Your task to perform on an android device: set the stopwatch Image 0: 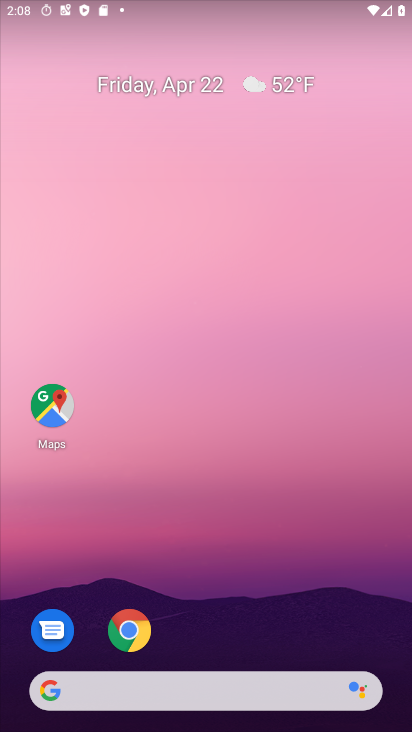
Step 0: drag from (369, 638) to (255, 47)
Your task to perform on an android device: set the stopwatch Image 1: 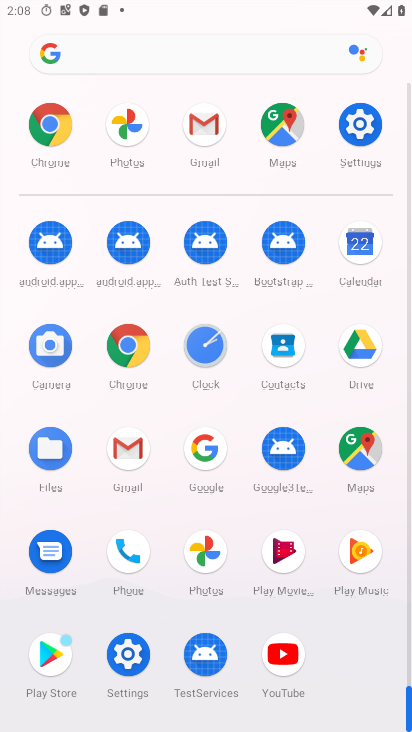
Step 1: click (204, 336)
Your task to perform on an android device: set the stopwatch Image 2: 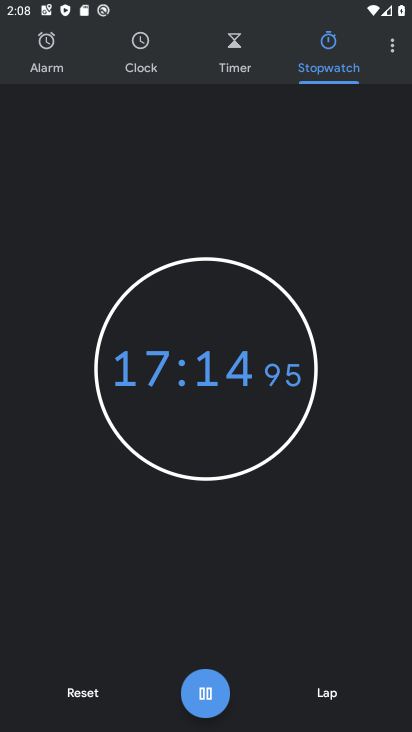
Step 2: click (82, 694)
Your task to perform on an android device: set the stopwatch Image 3: 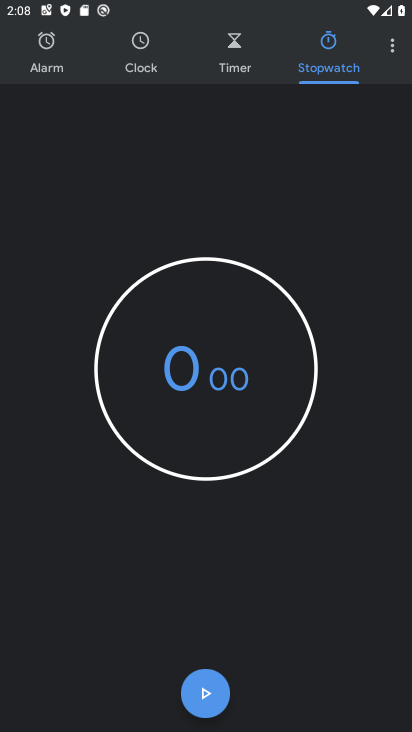
Step 3: click (213, 678)
Your task to perform on an android device: set the stopwatch Image 4: 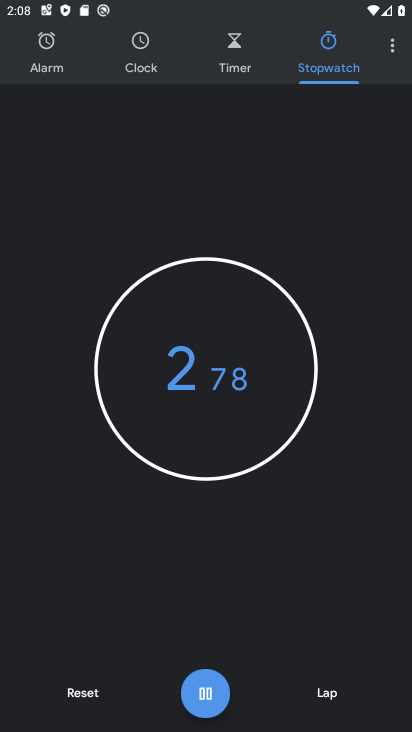
Step 4: task complete